Your task to perform on an android device: Show me recent news Image 0: 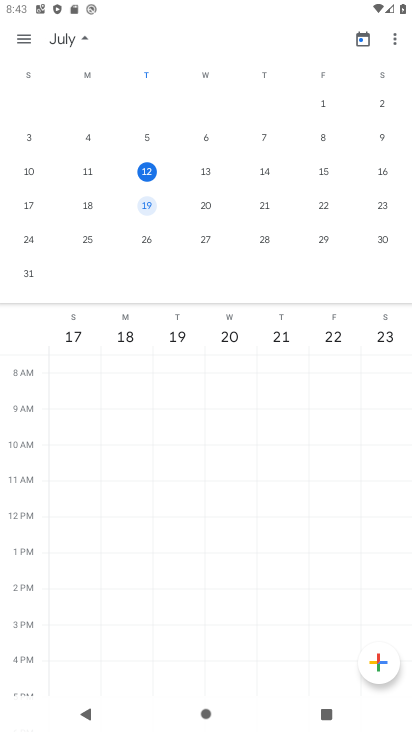
Step 0: press home button
Your task to perform on an android device: Show me recent news Image 1: 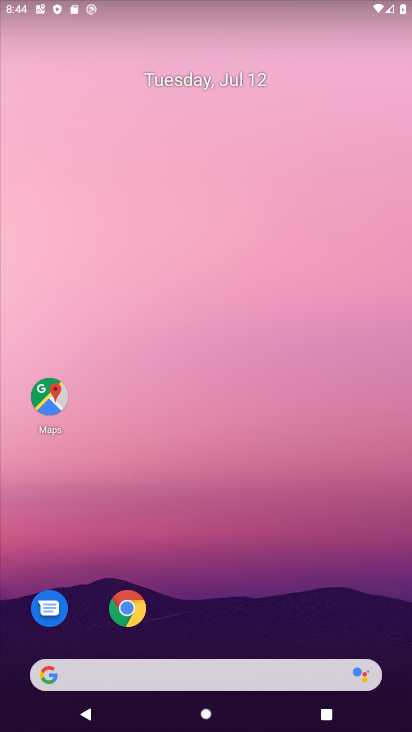
Step 1: drag from (254, 635) to (247, 210)
Your task to perform on an android device: Show me recent news Image 2: 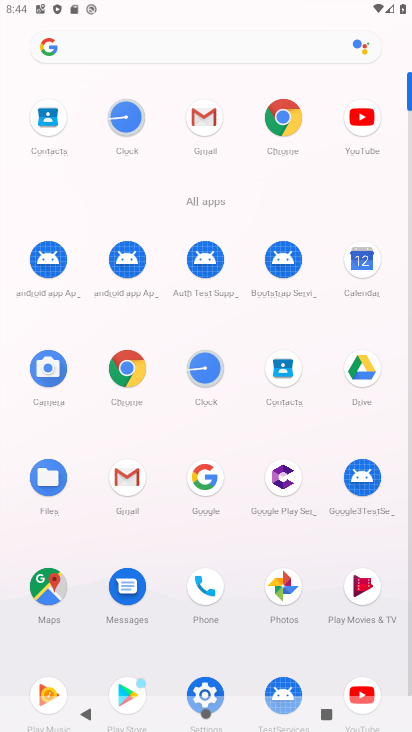
Step 2: click (213, 492)
Your task to perform on an android device: Show me recent news Image 3: 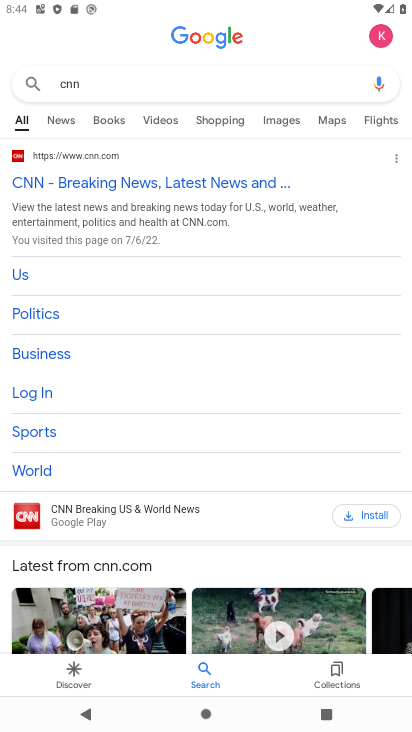
Step 3: click (70, 677)
Your task to perform on an android device: Show me recent news Image 4: 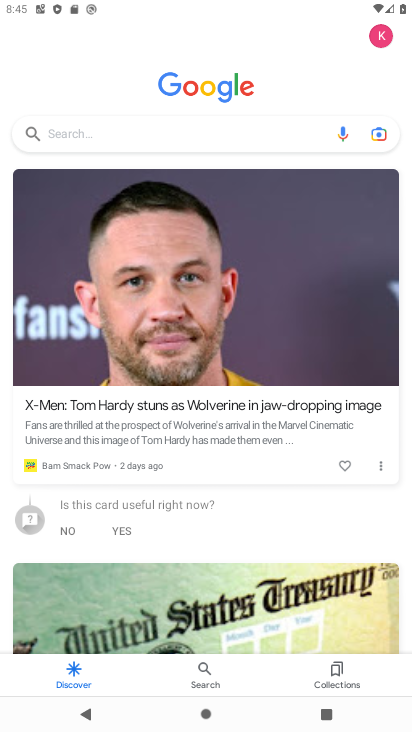
Step 4: task complete